Your task to perform on an android device: toggle location history Image 0: 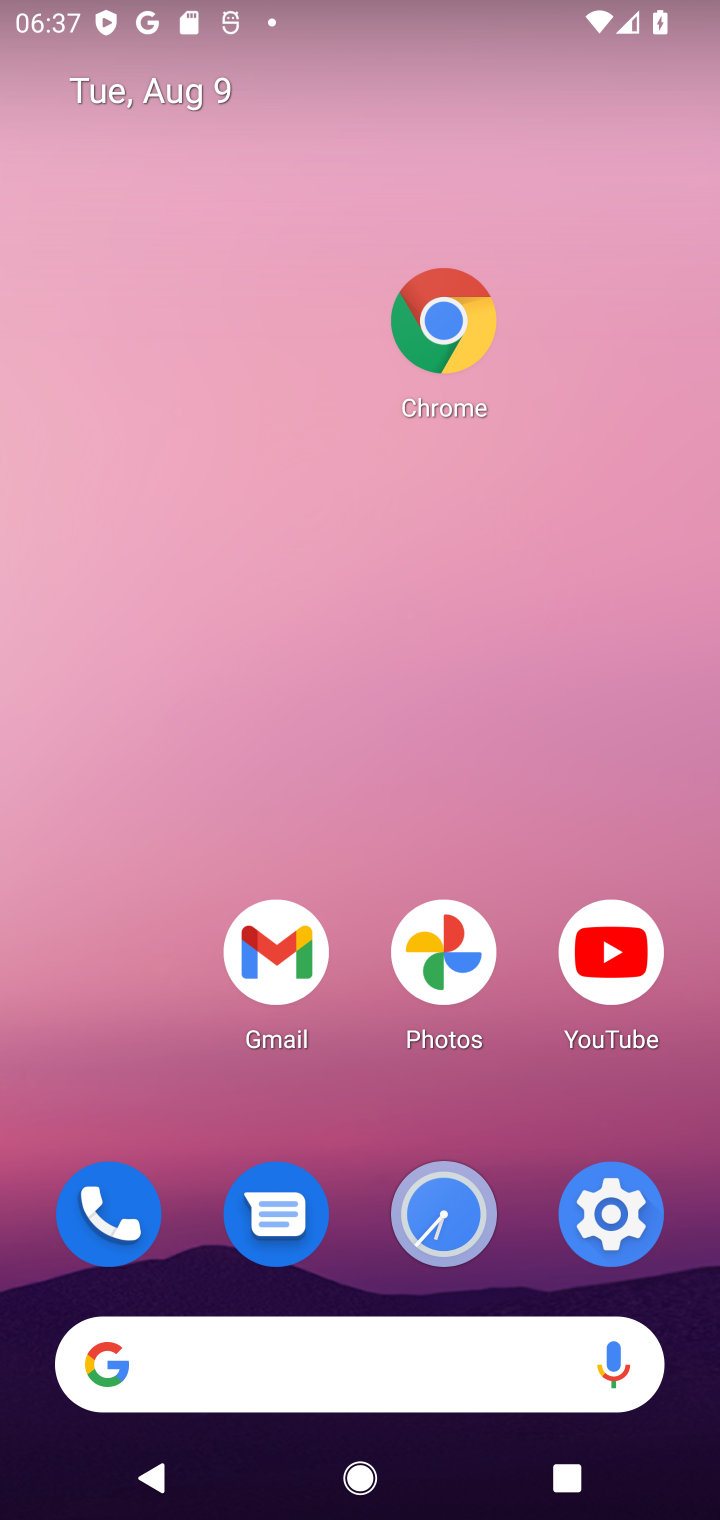
Step 0: drag from (546, 1381) to (481, 499)
Your task to perform on an android device: toggle location history Image 1: 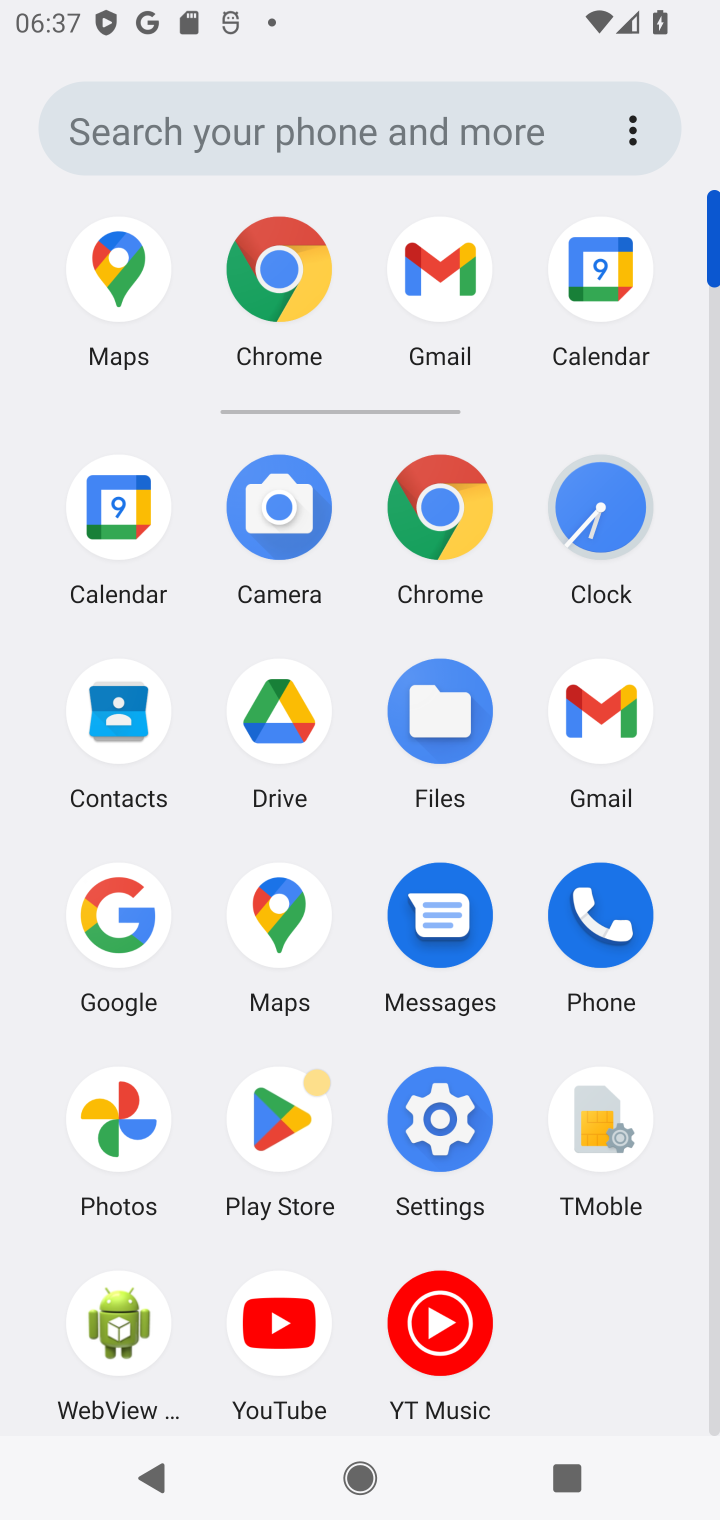
Step 1: click (416, 1133)
Your task to perform on an android device: toggle location history Image 2: 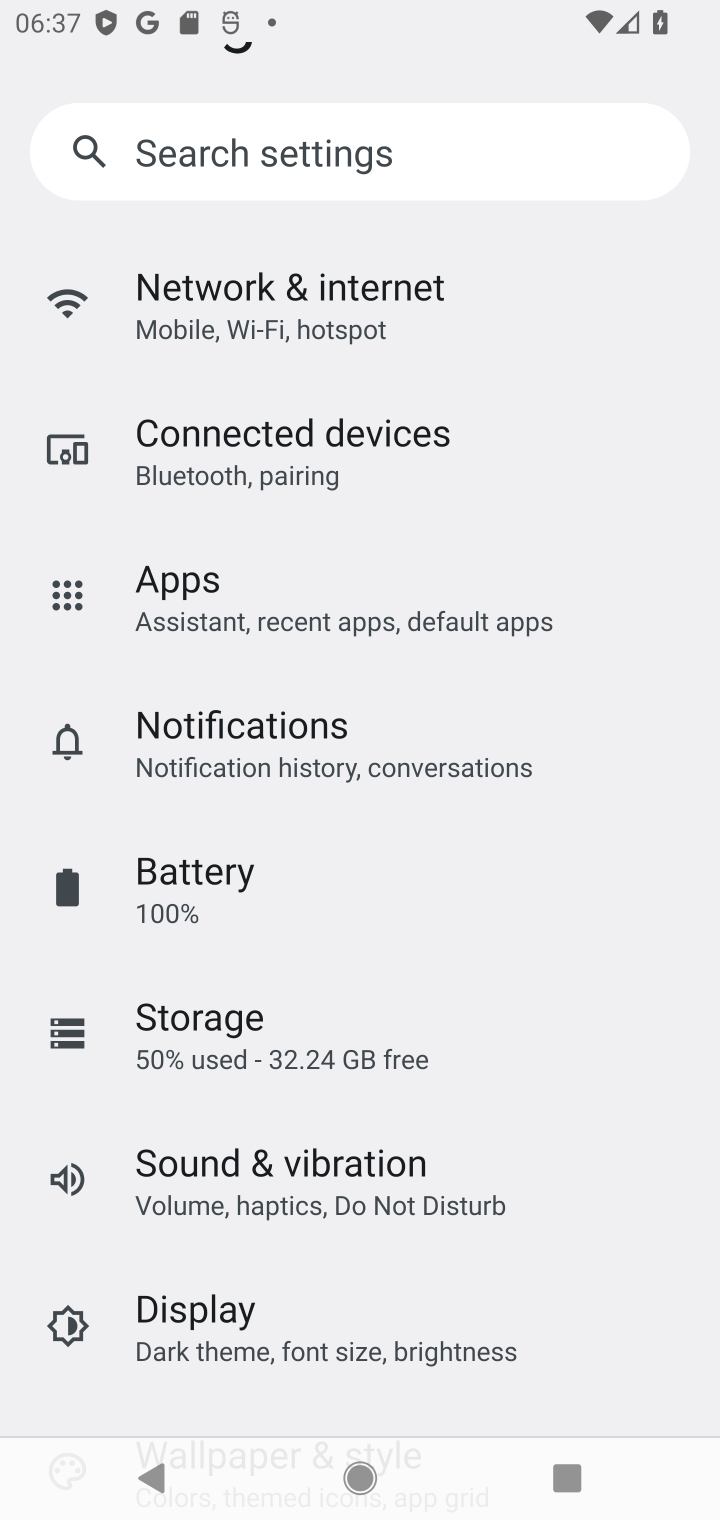
Step 2: click (271, 152)
Your task to perform on an android device: toggle location history Image 3: 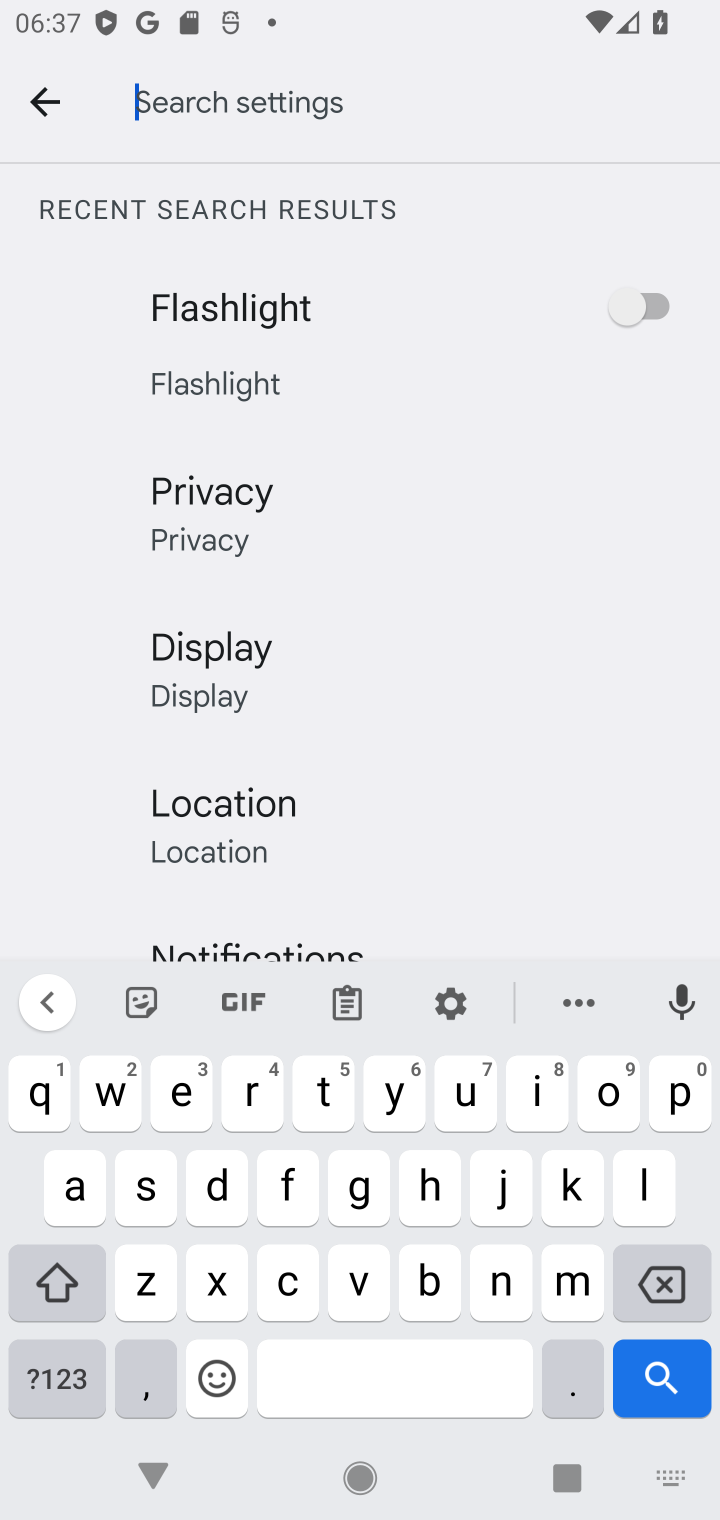
Step 3: click (296, 820)
Your task to perform on an android device: toggle location history Image 4: 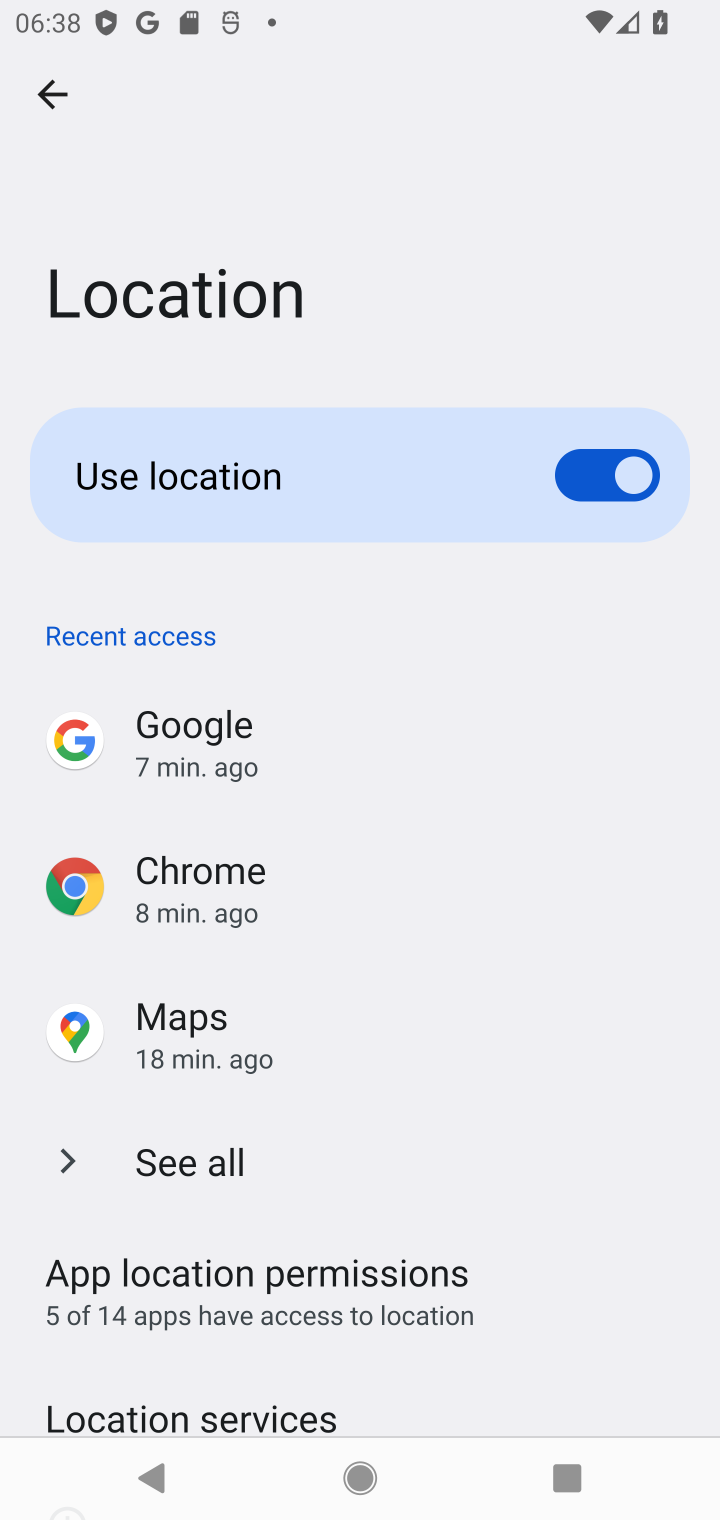
Step 4: drag from (181, 1253) to (250, 986)
Your task to perform on an android device: toggle location history Image 5: 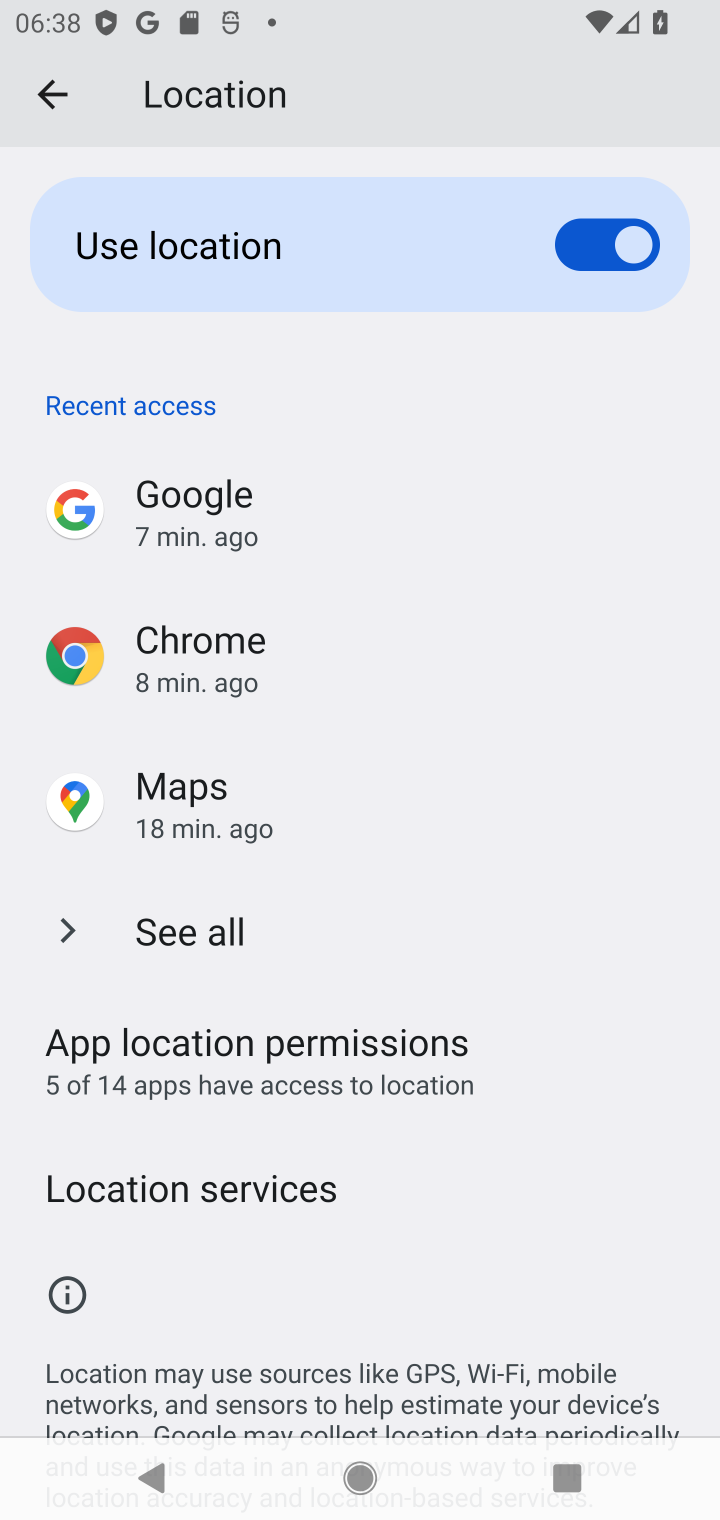
Step 5: click (167, 1207)
Your task to perform on an android device: toggle location history Image 6: 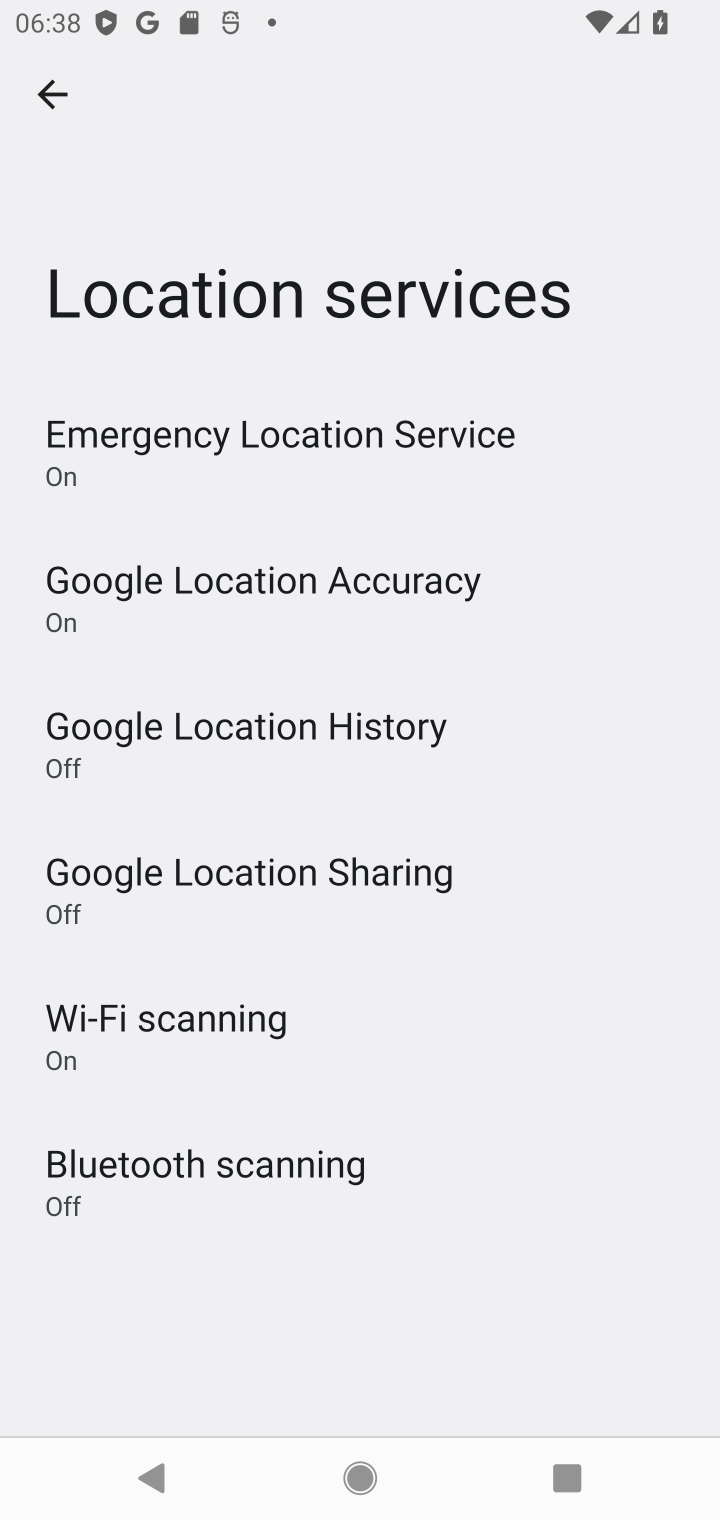
Step 6: click (235, 733)
Your task to perform on an android device: toggle location history Image 7: 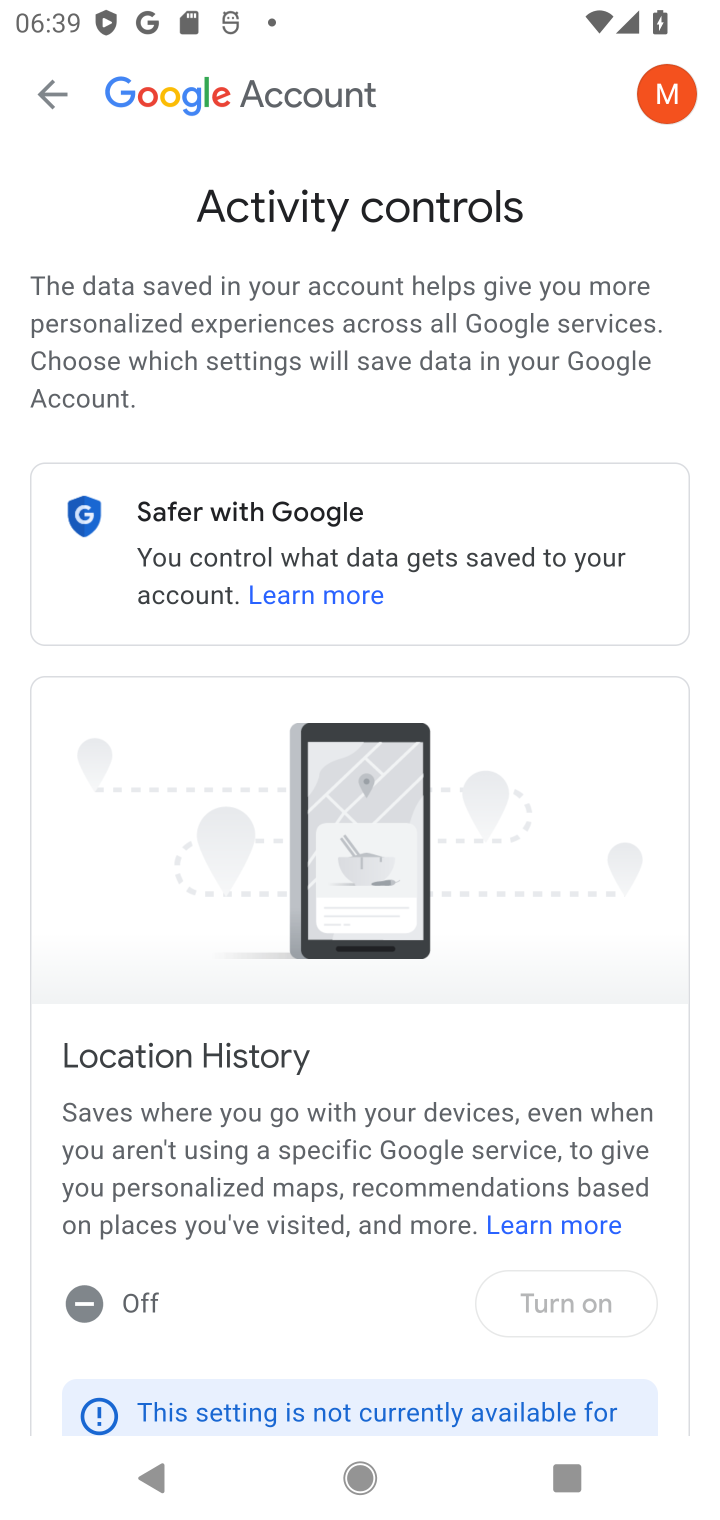
Step 7: task complete